Your task to perform on an android device: turn on the 12-hour format for clock Image 0: 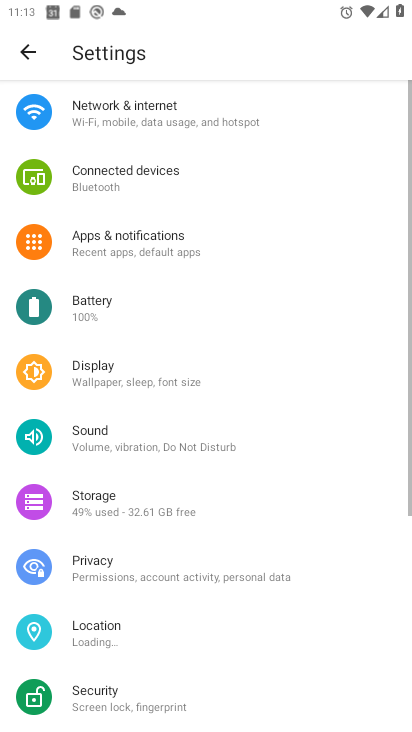
Step 0: click (18, 58)
Your task to perform on an android device: turn on the 12-hour format for clock Image 1: 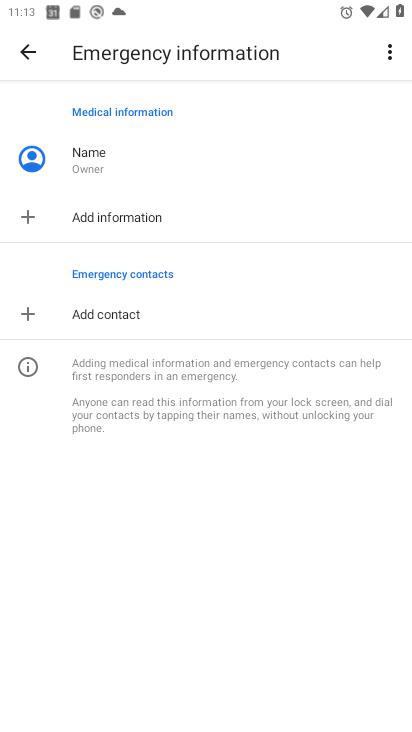
Step 1: click (27, 46)
Your task to perform on an android device: turn on the 12-hour format for clock Image 2: 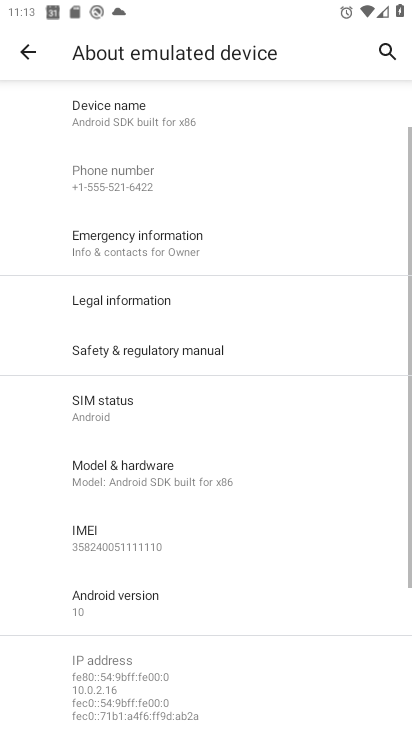
Step 2: click (31, 57)
Your task to perform on an android device: turn on the 12-hour format for clock Image 3: 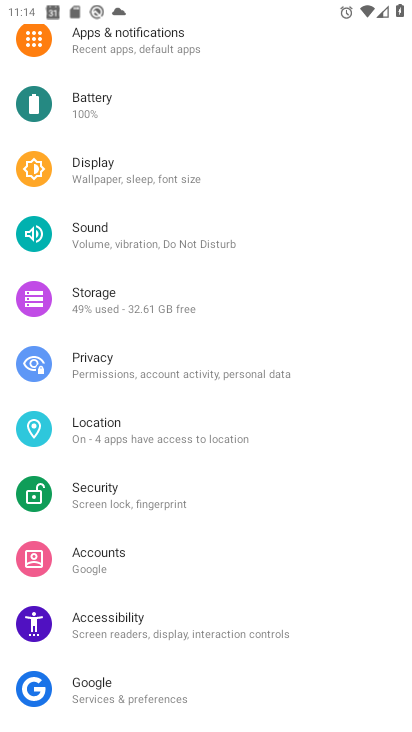
Step 3: press back button
Your task to perform on an android device: turn on the 12-hour format for clock Image 4: 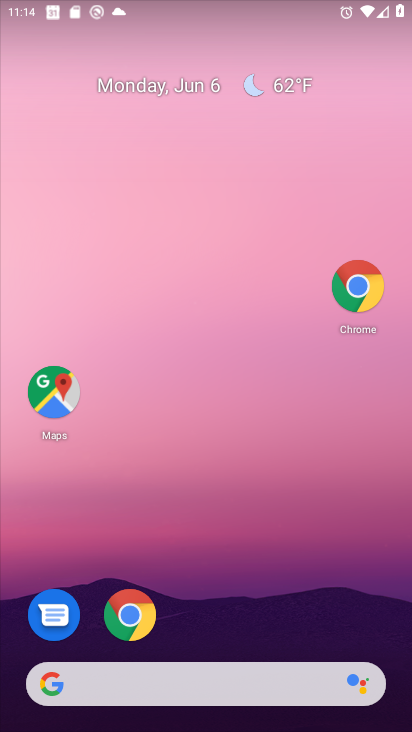
Step 4: drag from (230, 535) to (166, 230)
Your task to perform on an android device: turn on the 12-hour format for clock Image 5: 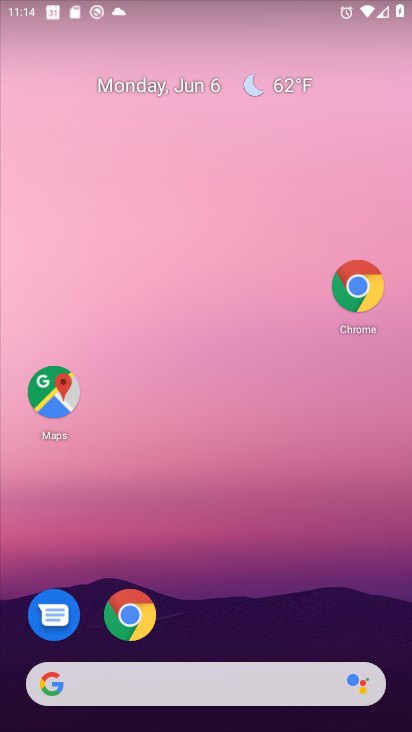
Step 5: drag from (324, 696) to (147, 159)
Your task to perform on an android device: turn on the 12-hour format for clock Image 6: 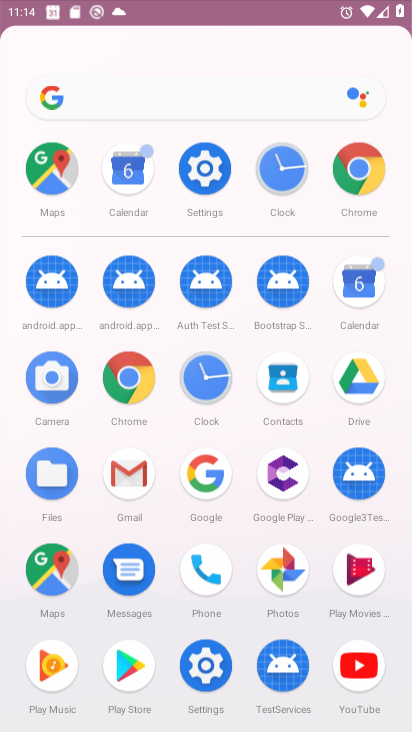
Step 6: drag from (229, 521) to (119, 166)
Your task to perform on an android device: turn on the 12-hour format for clock Image 7: 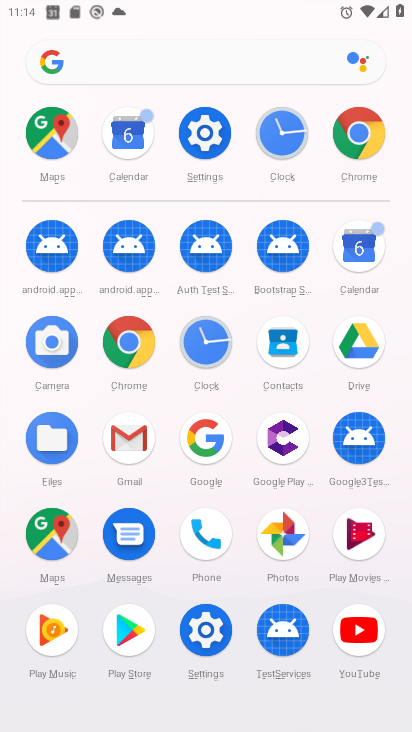
Step 7: click (204, 348)
Your task to perform on an android device: turn on the 12-hour format for clock Image 8: 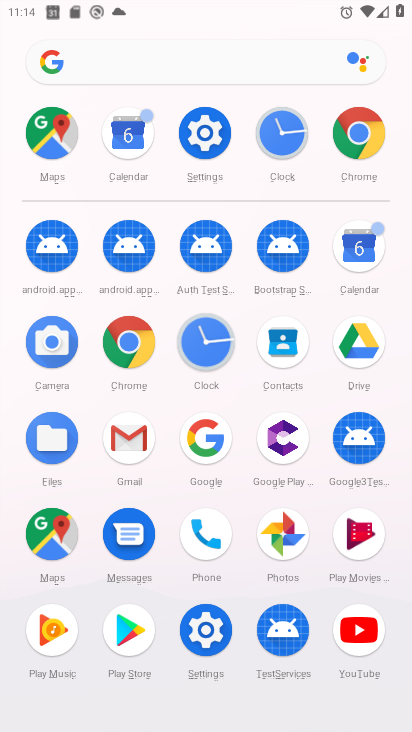
Step 8: click (204, 348)
Your task to perform on an android device: turn on the 12-hour format for clock Image 9: 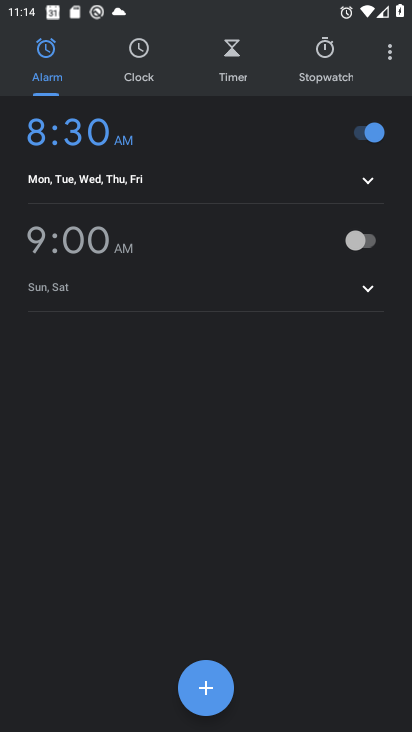
Step 9: click (383, 60)
Your task to perform on an android device: turn on the 12-hour format for clock Image 10: 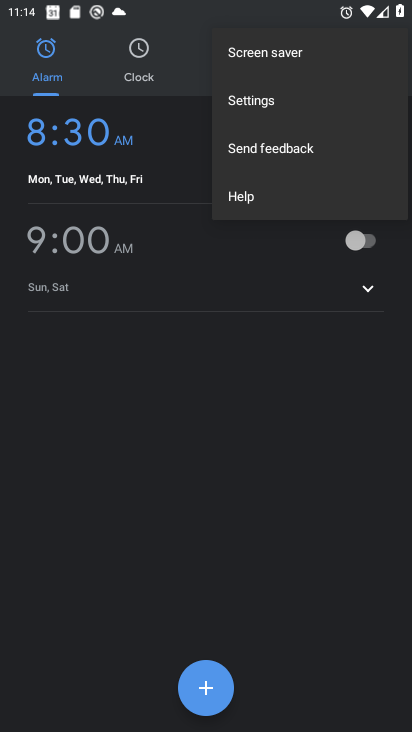
Step 10: click (396, 63)
Your task to perform on an android device: turn on the 12-hour format for clock Image 11: 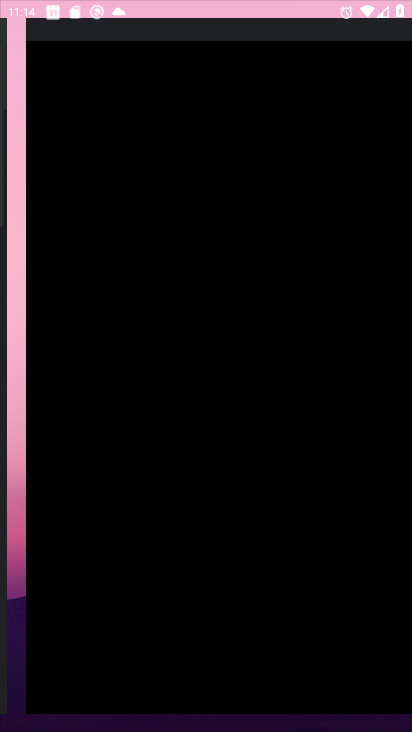
Step 11: click (268, 93)
Your task to perform on an android device: turn on the 12-hour format for clock Image 12: 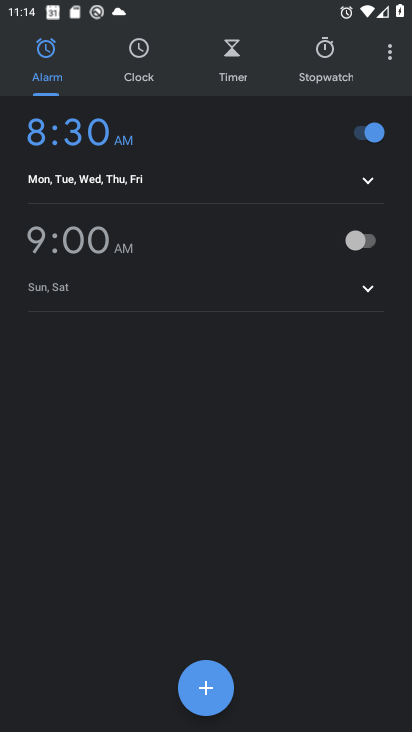
Step 12: click (391, 49)
Your task to perform on an android device: turn on the 12-hour format for clock Image 13: 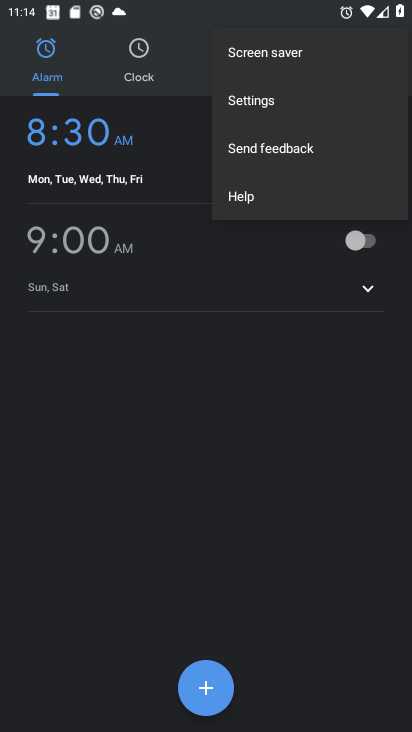
Step 13: click (266, 107)
Your task to perform on an android device: turn on the 12-hour format for clock Image 14: 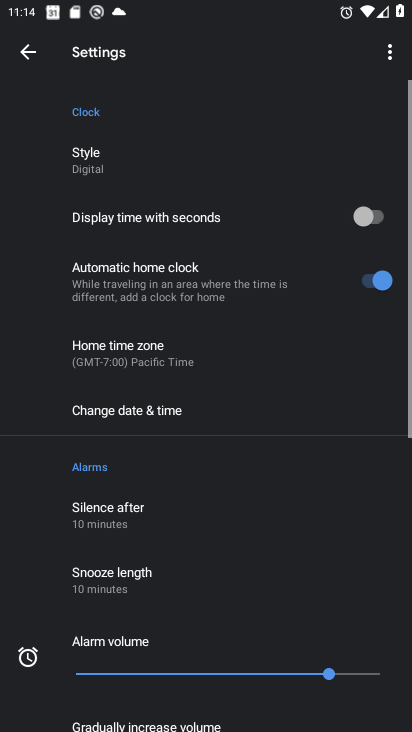
Step 14: drag from (221, 555) to (154, 121)
Your task to perform on an android device: turn on the 12-hour format for clock Image 15: 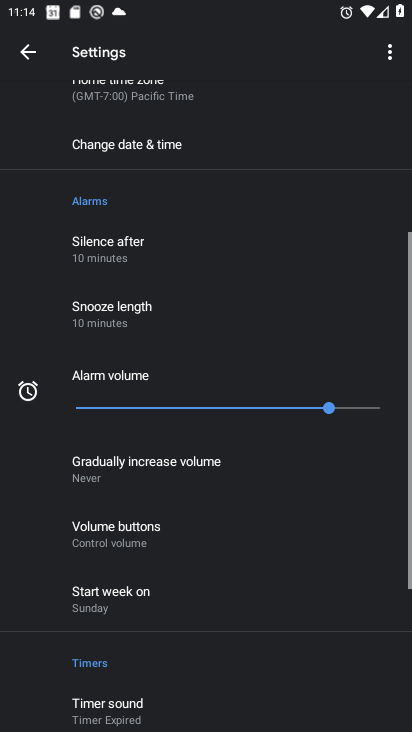
Step 15: drag from (219, 457) to (200, 179)
Your task to perform on an android device: turn on the 12-hour format for clock Image 16: 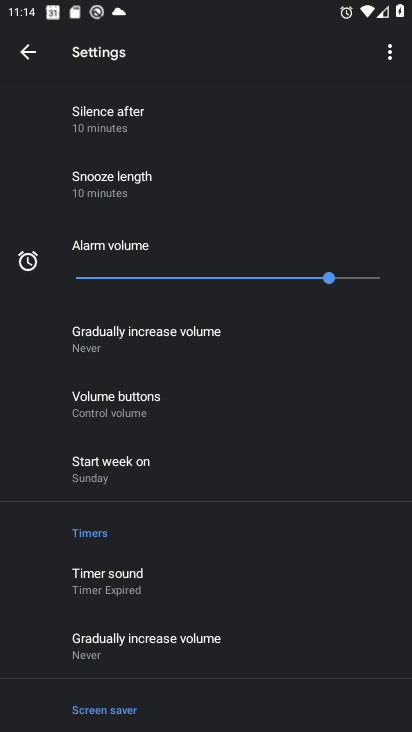
Step 16: drag from (209, 594) to (184, 241)
Your task to perform on an android device: turn on the 12-hour format for clock Image 17: 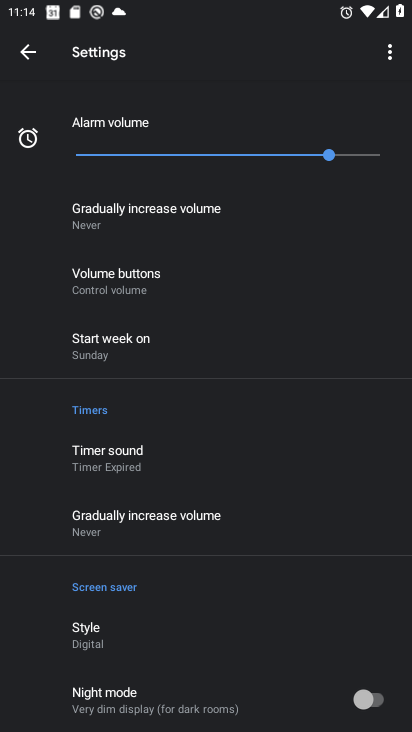
Step 17: drag from (160, 188) to (226, 574)
Your task to perform on an android device: turn on the 12-hour format for clock Image 18: 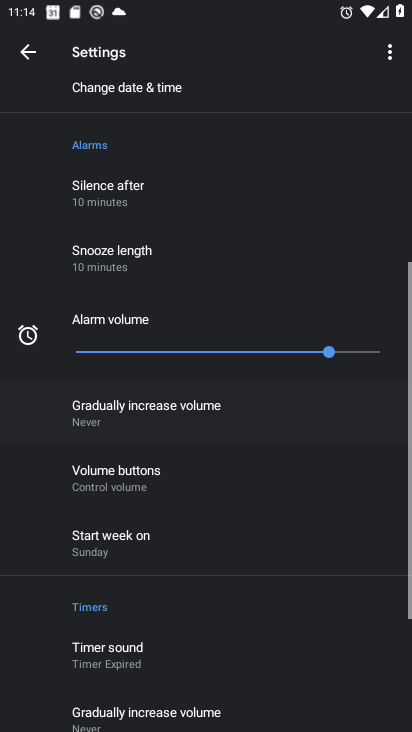
Step 18: drag from (168, 203) to (236, 511)
Your task to perform on an android device: turn on the 12-hour format for clock Image 19: 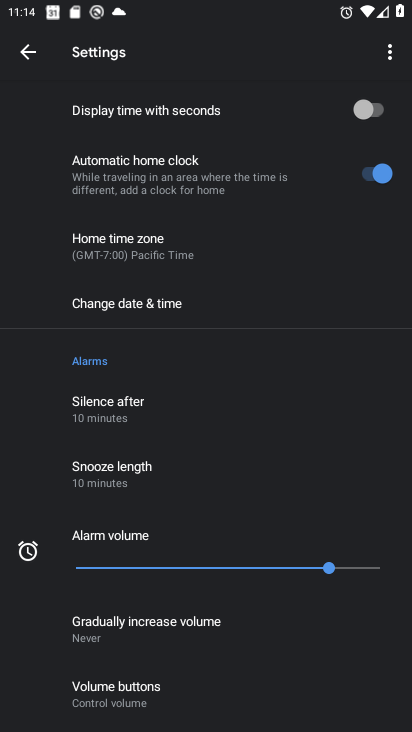
Step 19: click (144, 312)
Your task to perform on an android device: turn on the 12-hour format for clock Image 20: 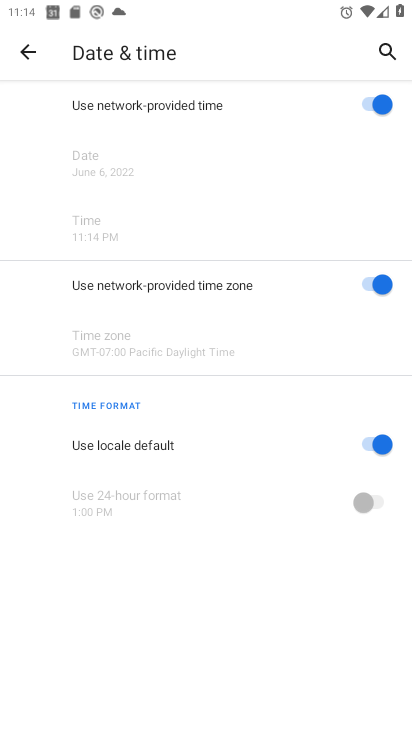
Step 20: task complete